Your task to perform on an android device: check battery use Image 0: 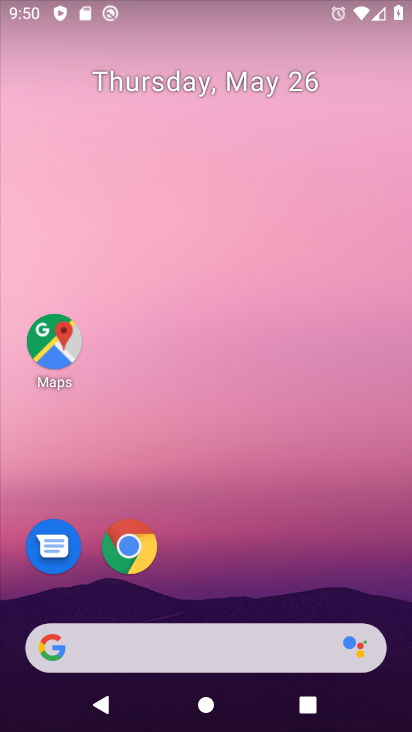
Step 0: drag from (296, 584) to (147, 118)
Your task to perform on an android device: check battery use Image 1: 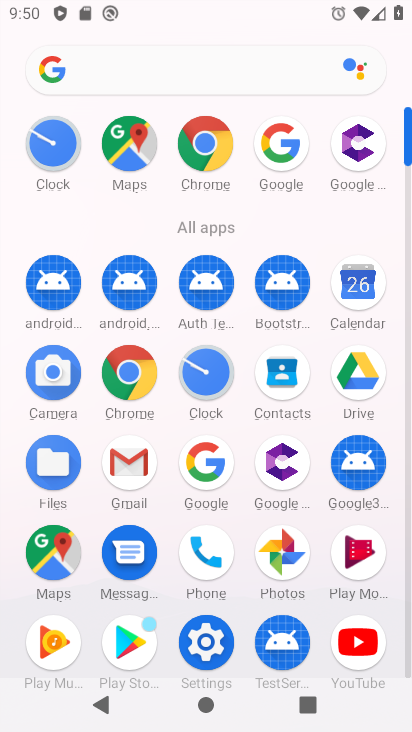
Step 1: drag from (237, 501) to (245, 362)
Your task to perform on an android device: check battery use Image 2: 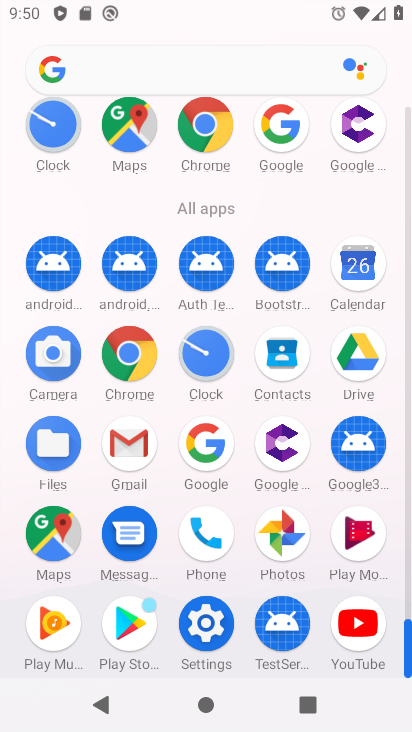
Step 2: click (206, 622)
Your task to perform on an android device: check battery use Image 3: 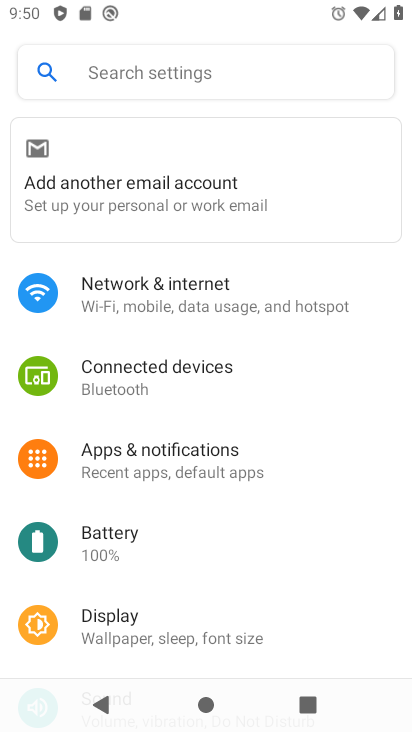
Step 3: click (109, 517)
Your task to perform on an android device: check battery use Image 4: 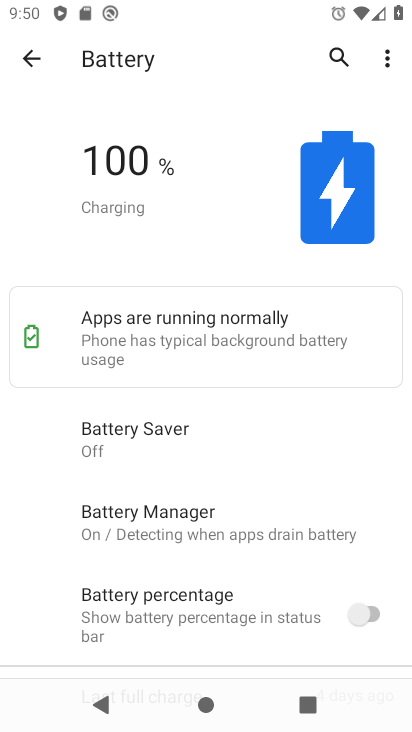
Step 4: click (387, 58)
Your task to perform on an android device: check battery use Image 5: 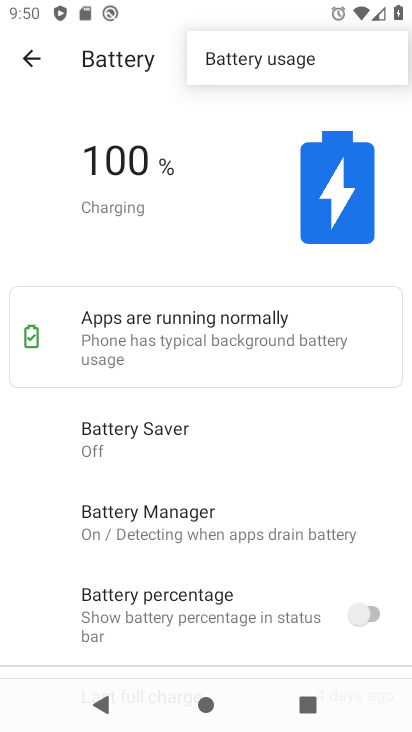
Step 5: click (291, 72)
Your task to perform on an android device: check battery use Image 6: 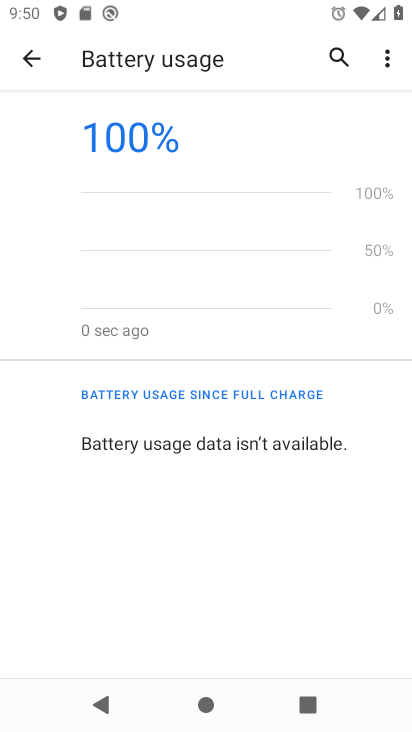
Step 6: task complete